Your task to perform on an android device: see tabs open on other devices in the chrome app Image 0: 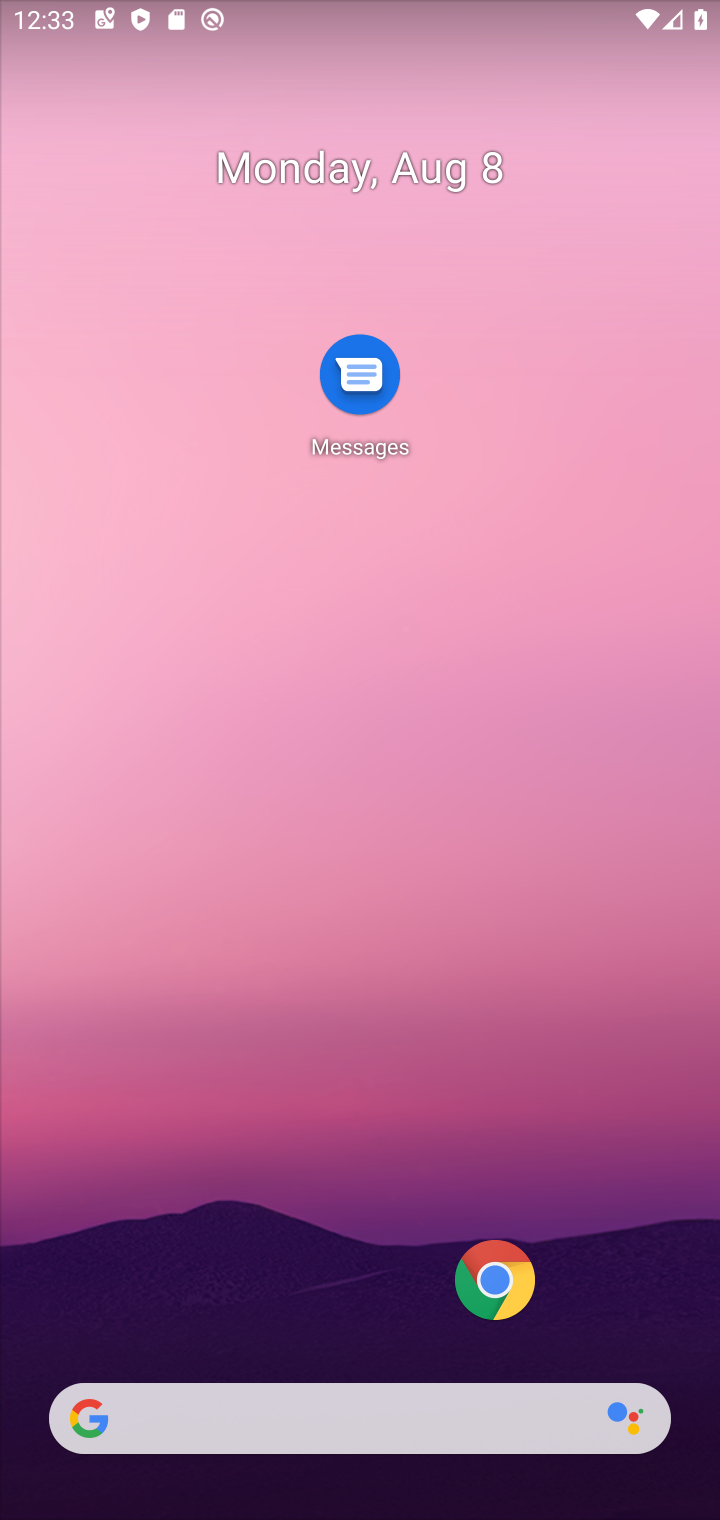
Step 0: click (485, 1287)
Your task to perform on an android device: see tabs open on other devices in the chrome app Image 1: 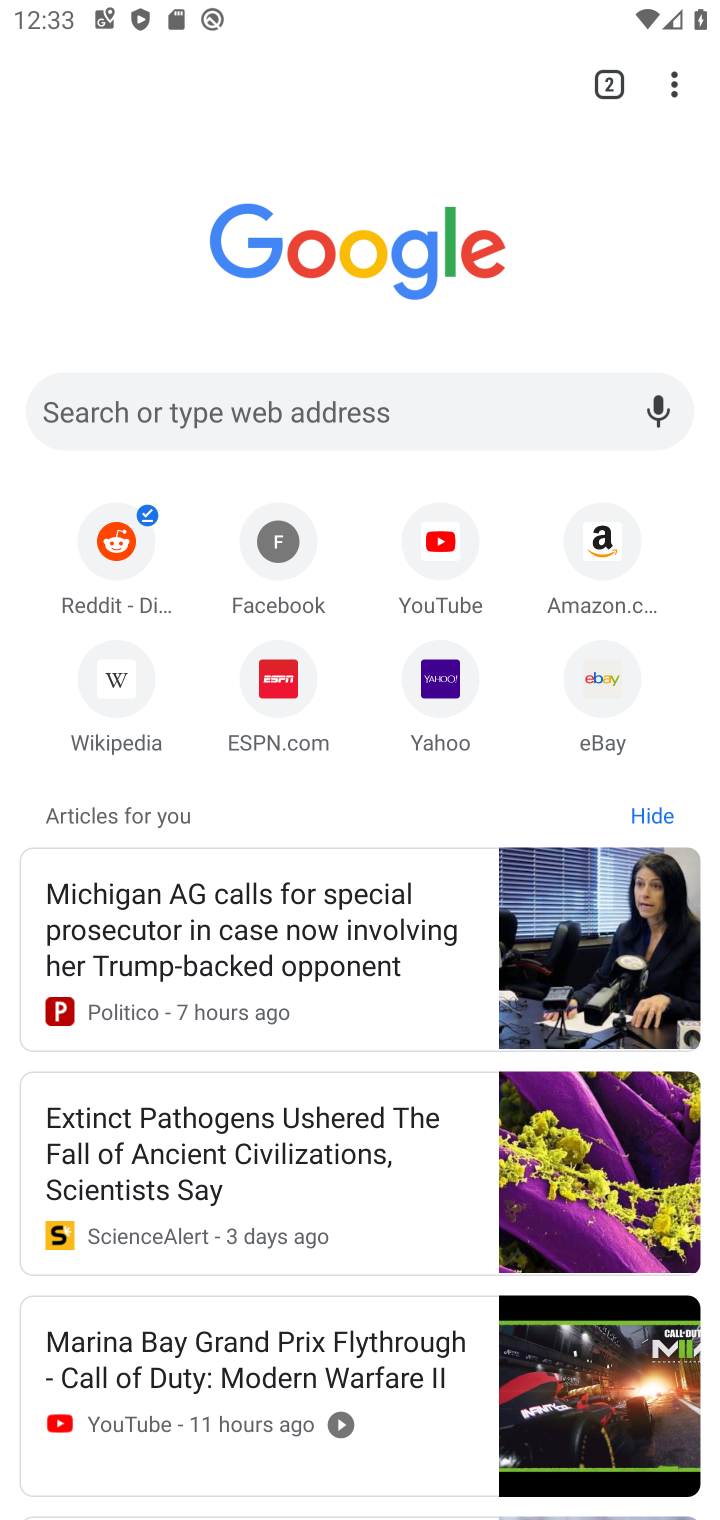
Step 1: task complete